Your task to perform on an android device: Go to accessibility settings Image 0: 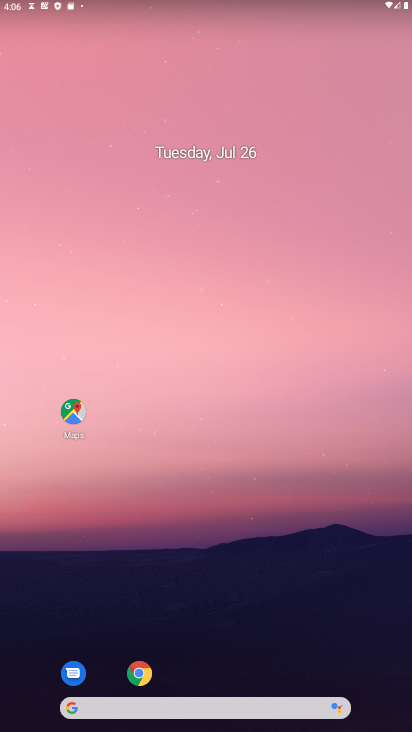
Step 0: drag from (199, 704) to (154, 226)
Your task to perform on an android device: Go to accessibility settings Image 1: 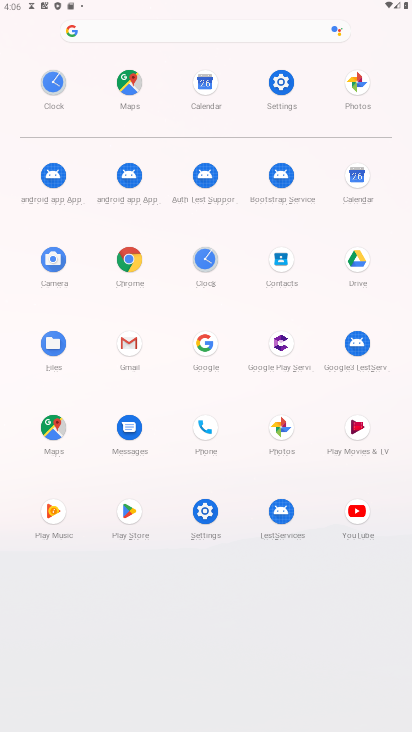
Step 1: click (282, 82)
Your task to perform on an android device: Go to accessibility settings Image 2: 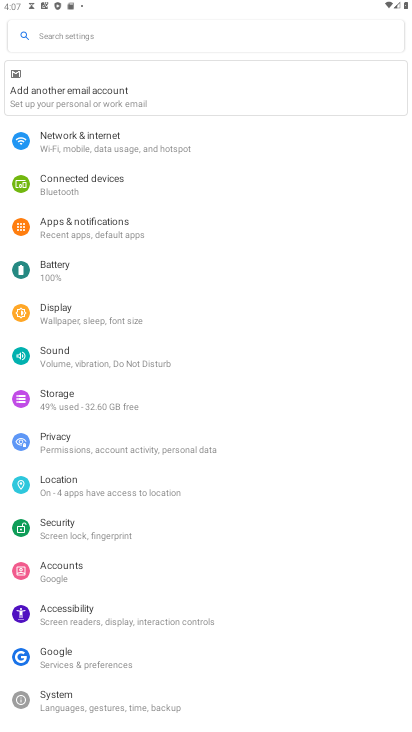
Step 2: click (83, 614)
Your task to perform on an android device: Go to accessibility settings Image 3: 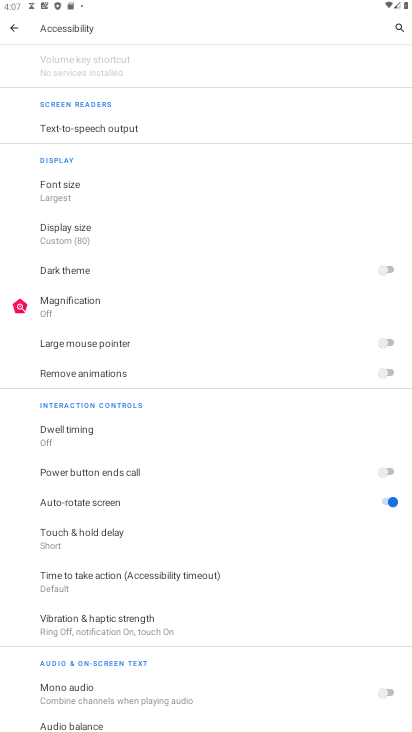
Step 3: task complete